Your task to perform on an android device: check data usage Image 0: 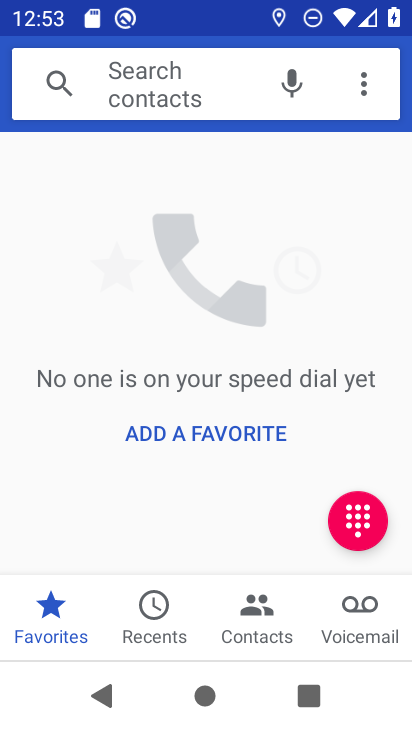
Step 0: press home button
Your task to perform on an android device: check data usage Image 1: 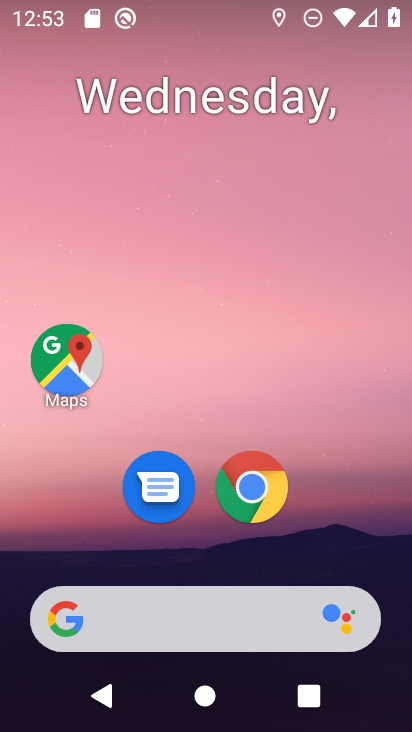
Step 1: drag from (369, 532) to (368, 200)
Your task to perform on an android device: check data usage Image 2: 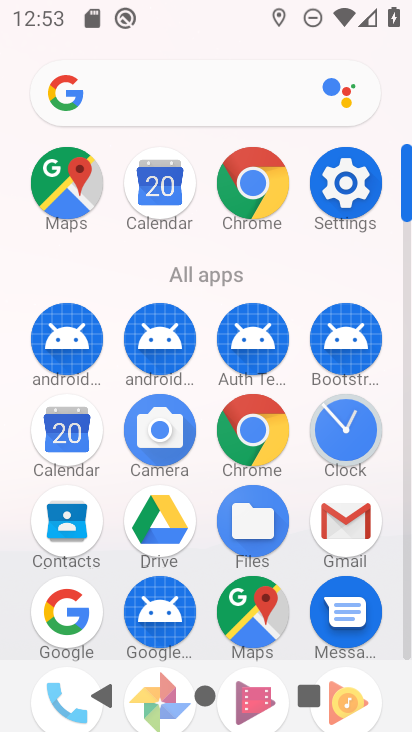
Step 2: click (344, 205)
Your task to perform on an android device: check data usage Image 3: 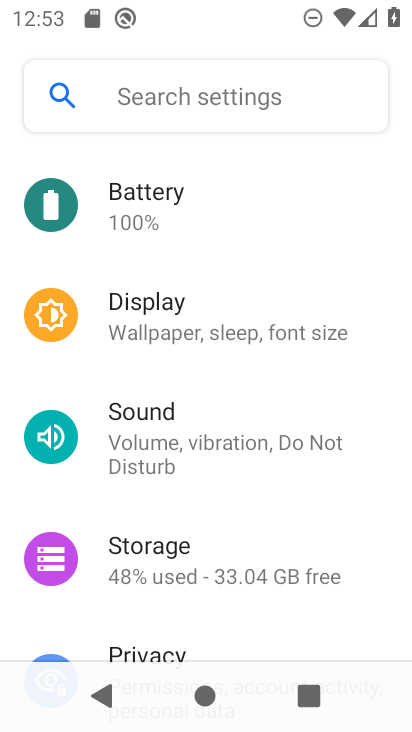
Step 3: drag from (343, 497) to (349, 333)
Your task to perform on an android device: check data usage Image 4: 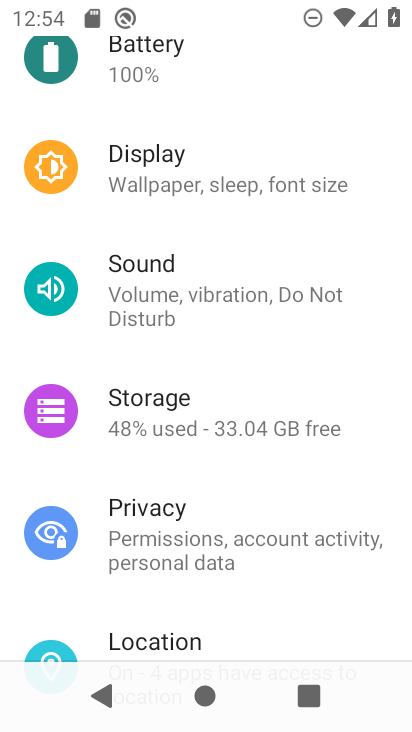
Step 4: drag from (339, 610) to (343, 476)
Your task to perform on an android device: check data usage Image 5: 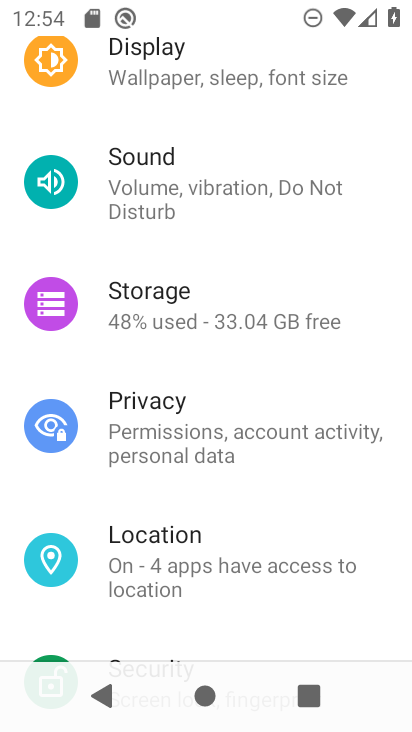
Step 5: drag from (356, 305) to (359, 473)
Your task to perform on an android device: check data usage Image 6: 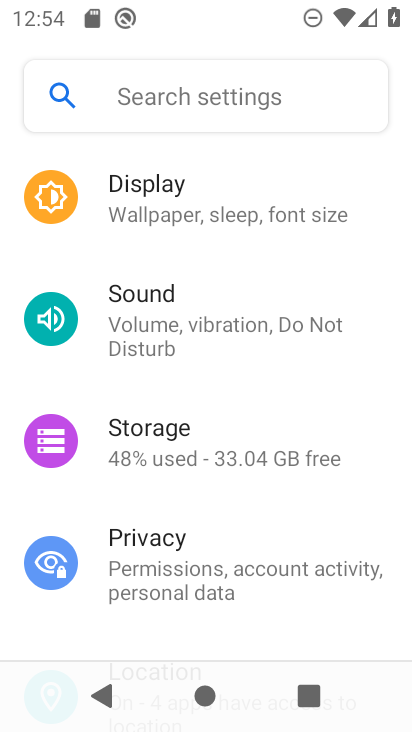
Step 6: drag from (359, 326) to (369, 471)
Your task to perform on an android device: check data usage Image 7: 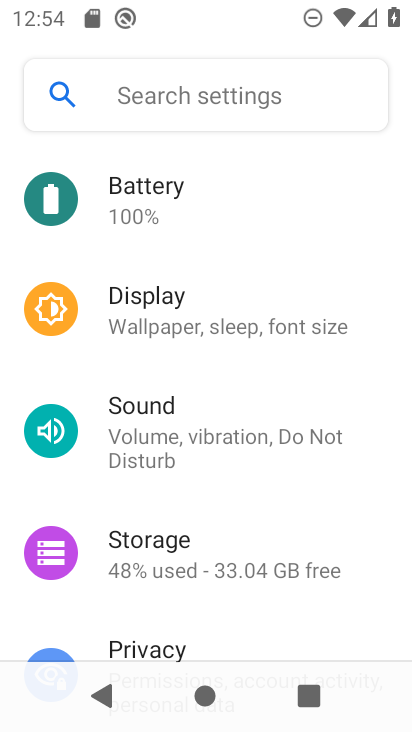
Step 7: drag from (372, 607) to (373, 497)
Your task to perform on an android device: check data usage Image 8: 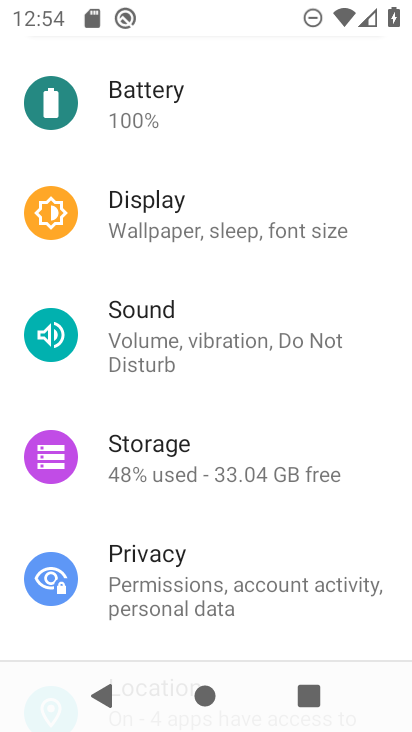
Step 8: drag from (320, 251) to (354, 433)
Your task to perform on an android device: check data usage Image 9: 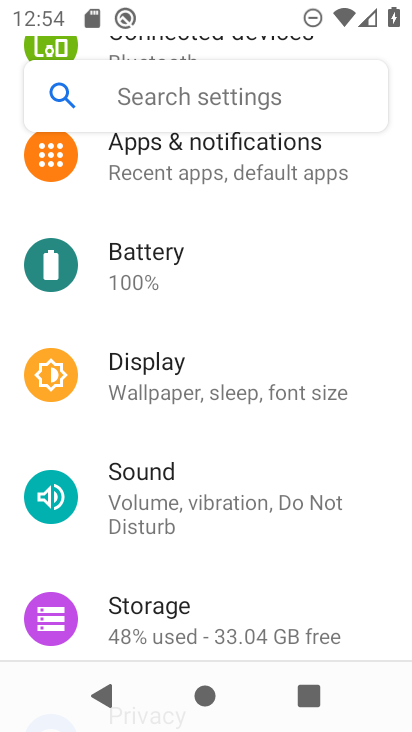
Step 9: drag from (358, 232) to (364, 383)
Your task to perform on an android device: check data usage Image 10: 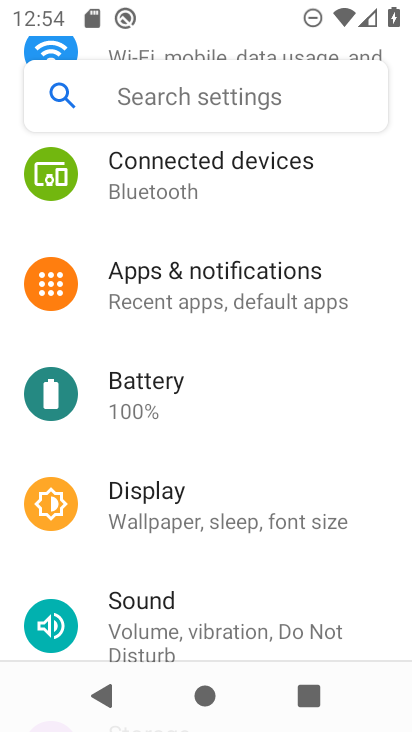
Step 10: drag from (354, 195) to (359, 361)
Your task to perform on an android device: check data usage Image 11: 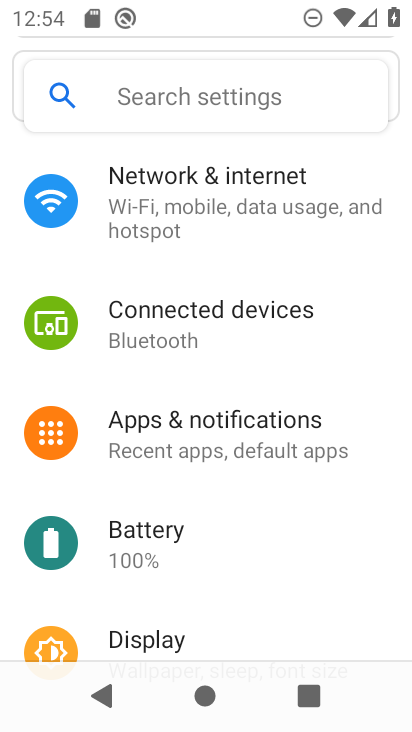
Step 11: click (339, 207)
Your task to perform on an android device: check data usage Image 12: 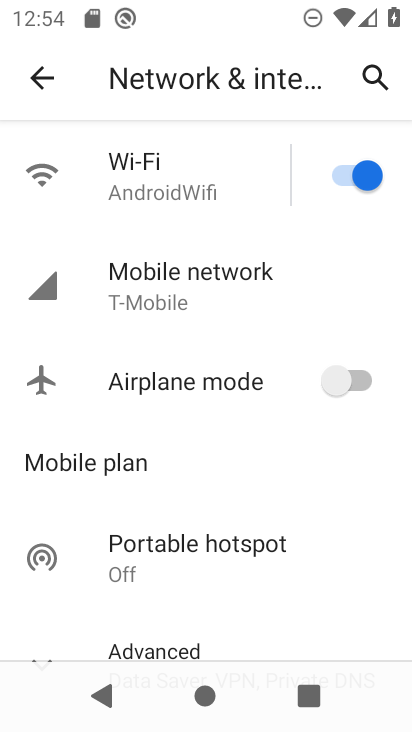
Step 12: click (236, 270)
Your task to perform on an android device: check data usage Image 13: 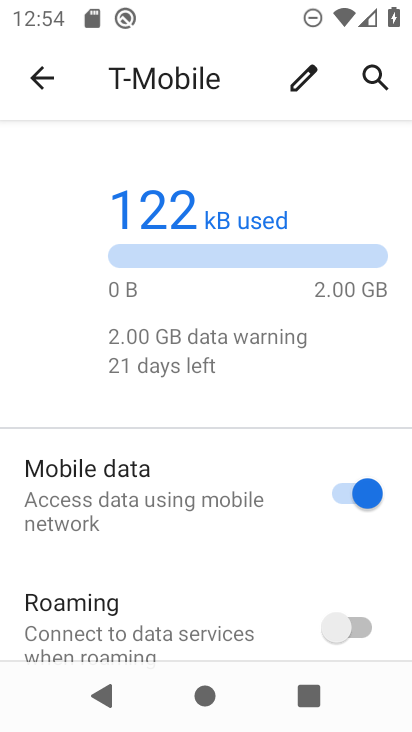
Step 13: drag from (198, 547) to (199, 410)
Your task to perform on an android device: check data usage Image 14: 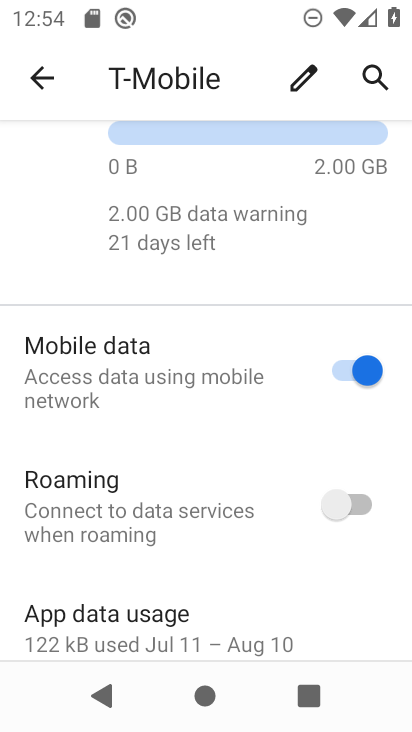
Step 14: drag from (227, 571) to (229, 439)
Your task to perform on an android device: check data usage Image 15: 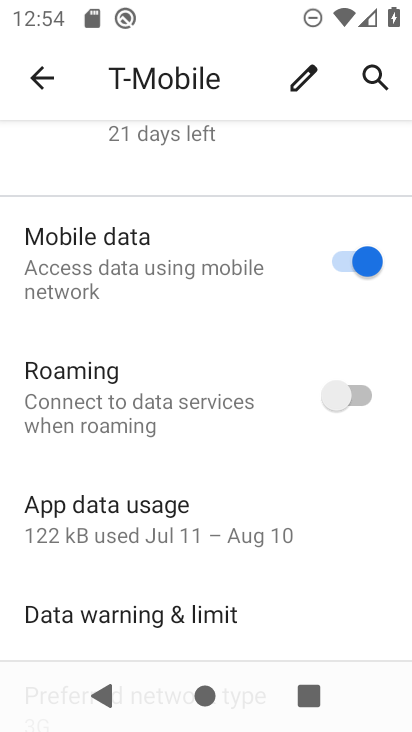
Step 15: click (224, 520)
Your task to perform on an android device: check data usage Image 16: 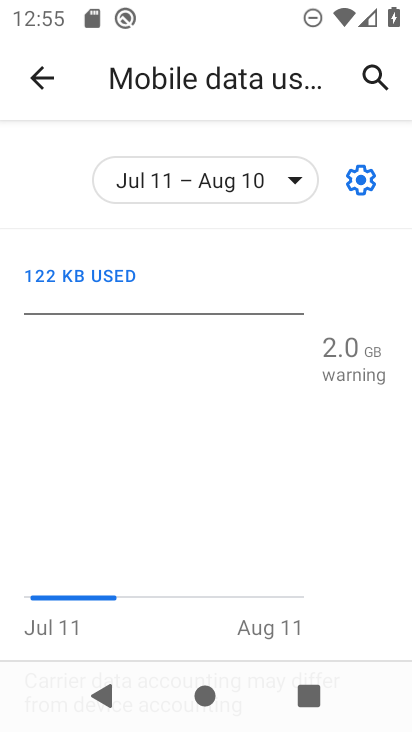
Step 16: task complete